Your task to perform on an android device: Open notification settings Image 0: 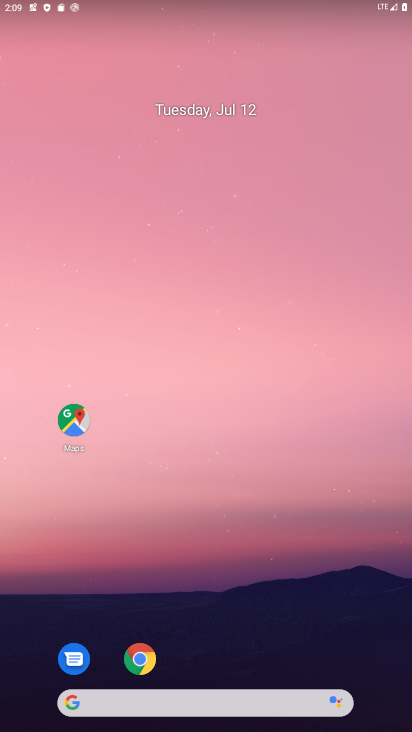
Step 0: drag from (233, 679) to (214, 155)
Your task to perform on an android device: Open notification settings Image 1: 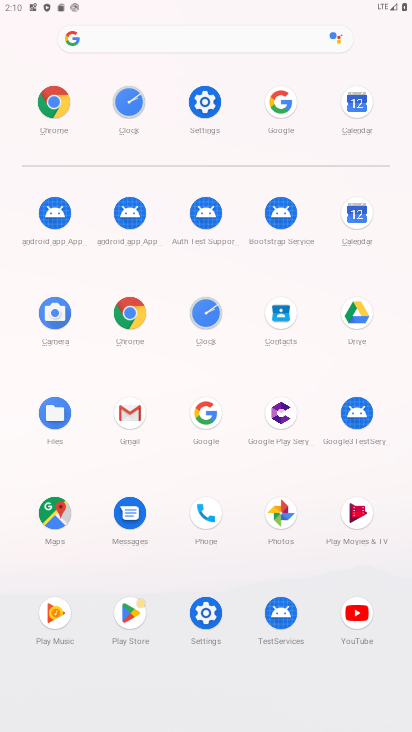
Step 1: click (209, 106)
Your task to perform on an android device: Open notification settings Image 2: 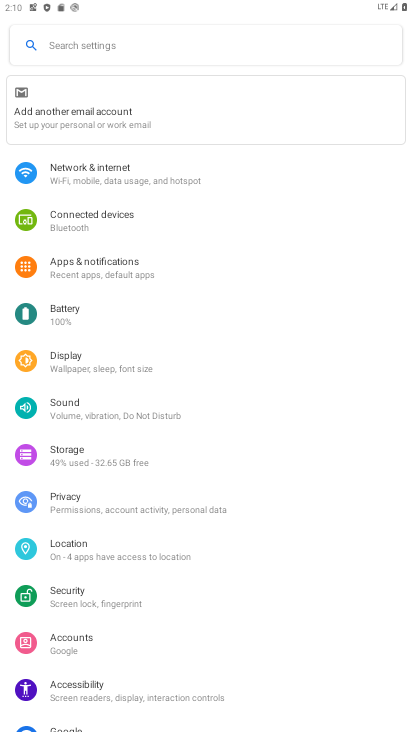
Step 2: click (77, 262)
Your task to perform on an android device: Open notification settings Image 3: 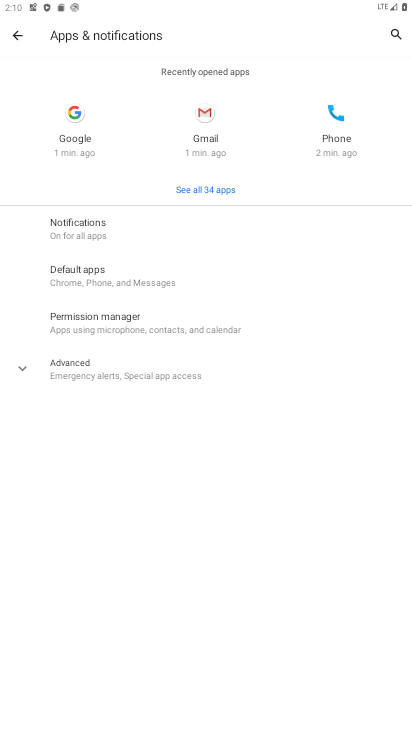
Step 3: click (73, 226)
Your task to perform on an android device: Open notification settings Image 4: 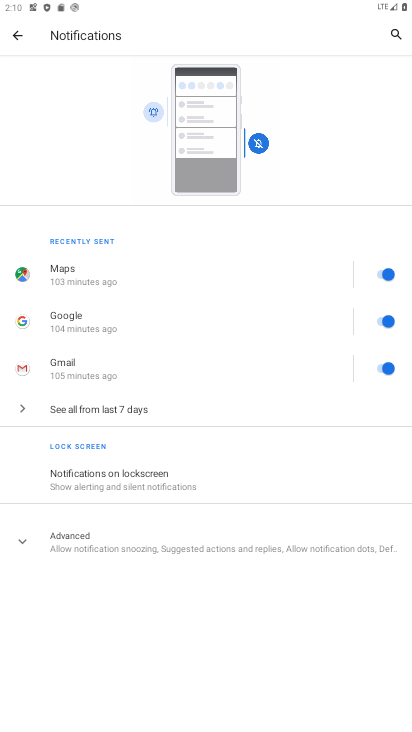
Step 4: task complete